Your task to perform on an android device: check the backup settings in the google photos Image 0: 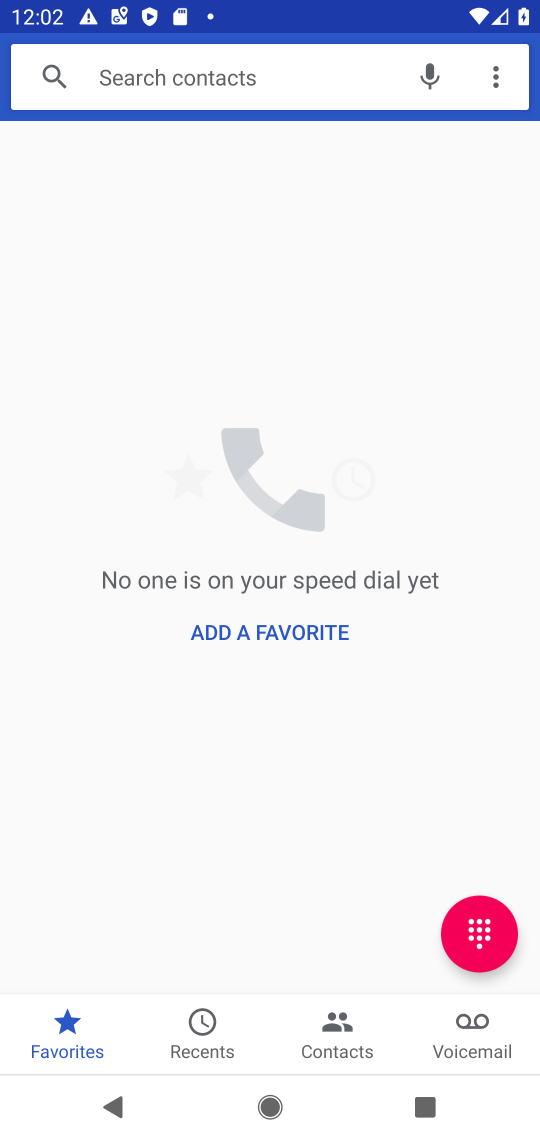
Step 0: press home button
Your task to perform on an android device: check the backup settings in the google photos Image 1: 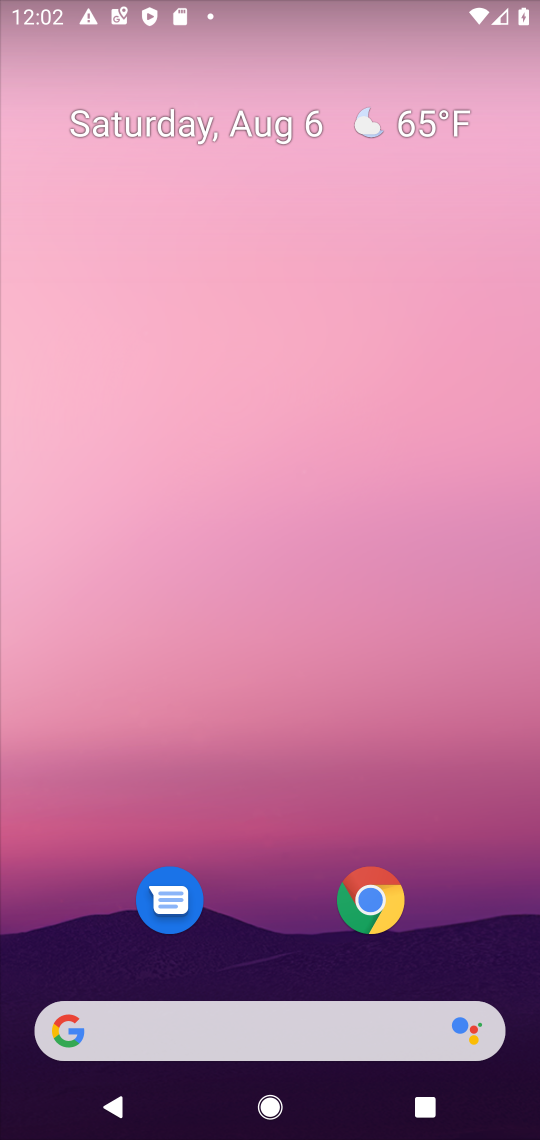
Step 1: drag from (250, 873) to (253, 119)
Your task to perform on an android device: check the backup settings in the google photos Image 2: 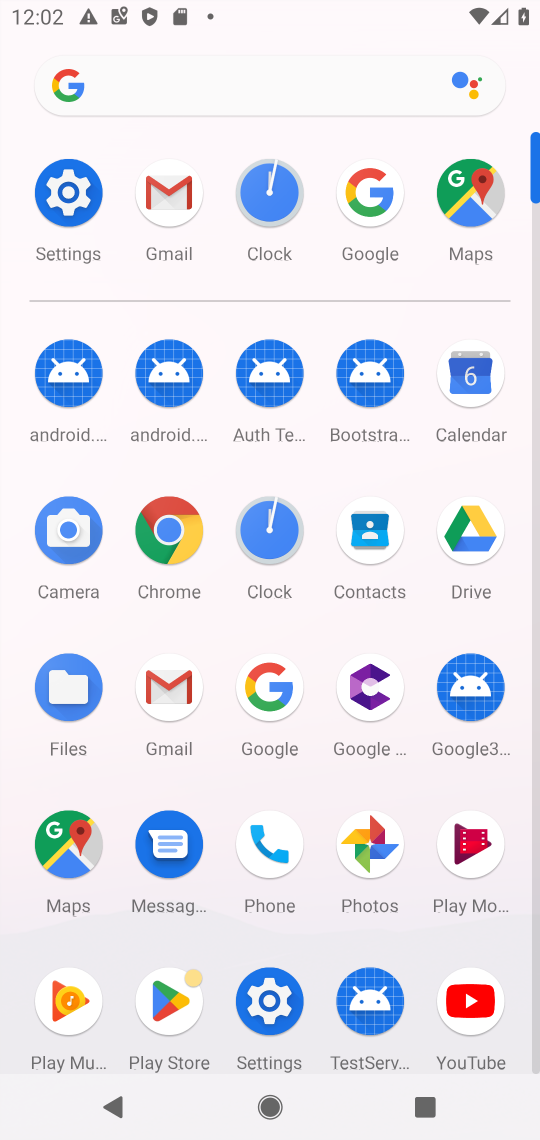
Step 2: click (353, 849)
Your task to perform on an android device: check the backup settings in the google photos Image 3: 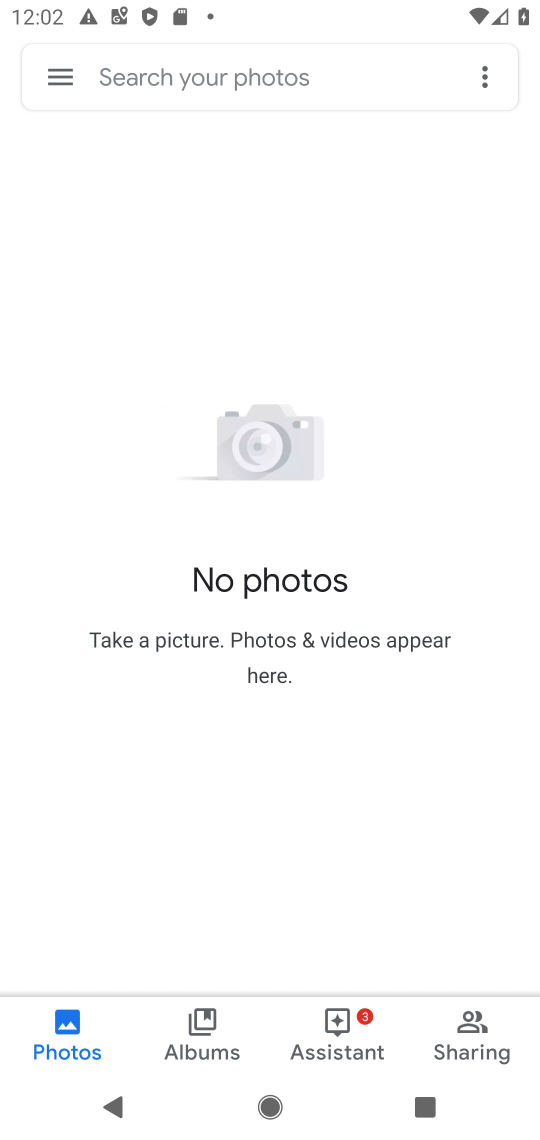
Step 3: click (61, 74)
Your task to perform on an android device: check the backup settings in the google photos Image 4: 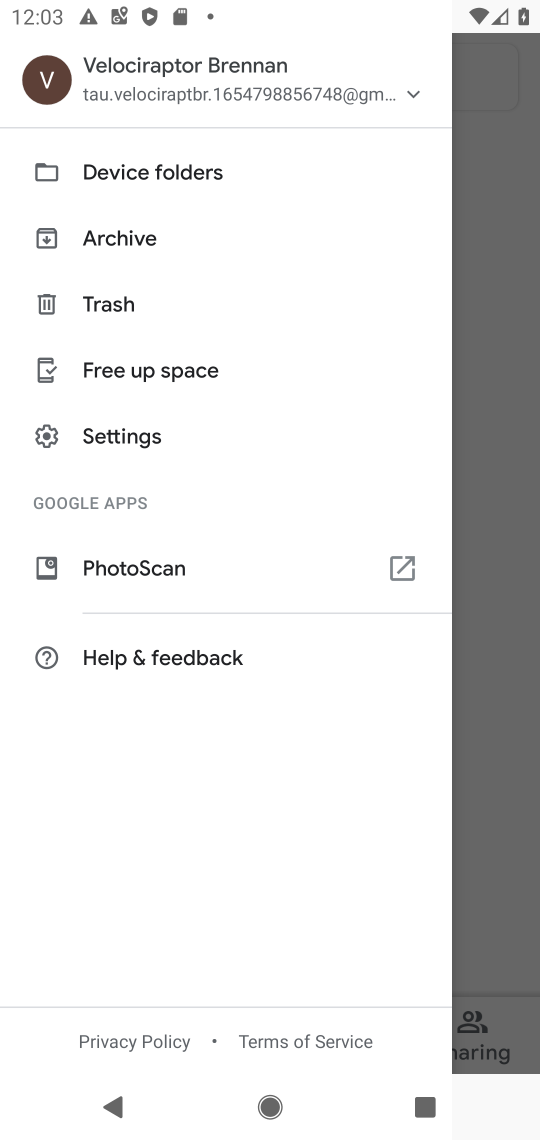
Step 4: click (116, 433)
Your task to perform on an android device: check the backup settings in the google photos Image 5: 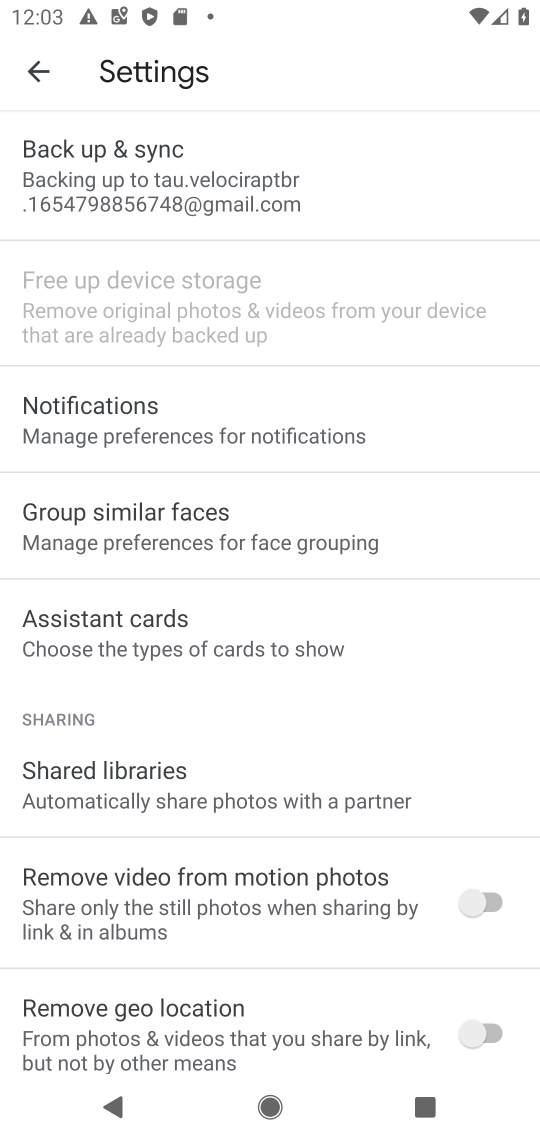
Step 5: click (112, 174)
Your task to perform on an android device: check the backup settings in the google photos Image 6: 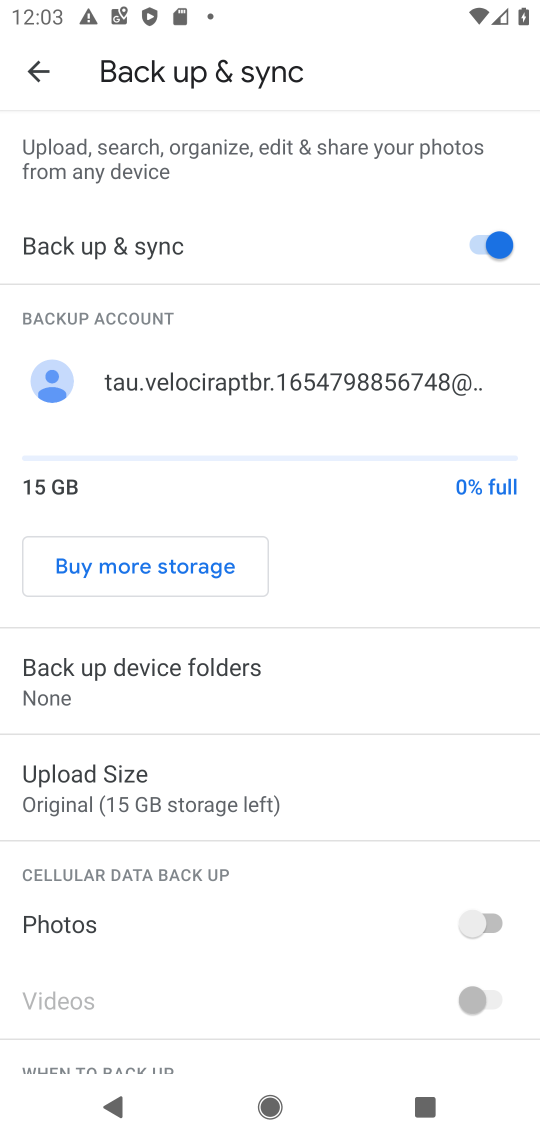
Step 6: task complete